Your task to perform on an android device: find snoozed emails in the gmail app Image 0: 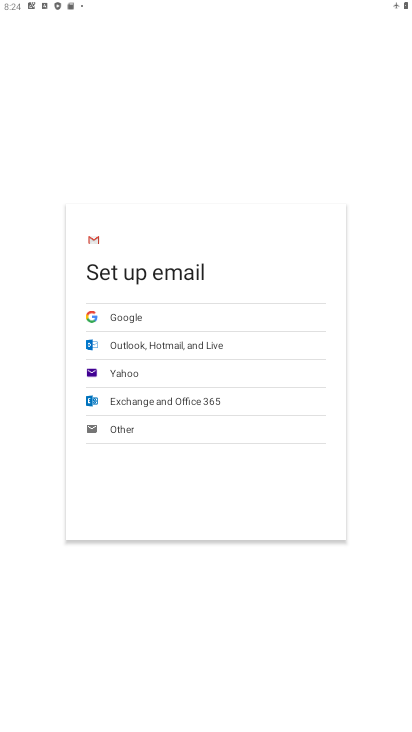
Step 0: press home button
Your task to perform on an android device: find snoozed emails in the gmail app Image 1: 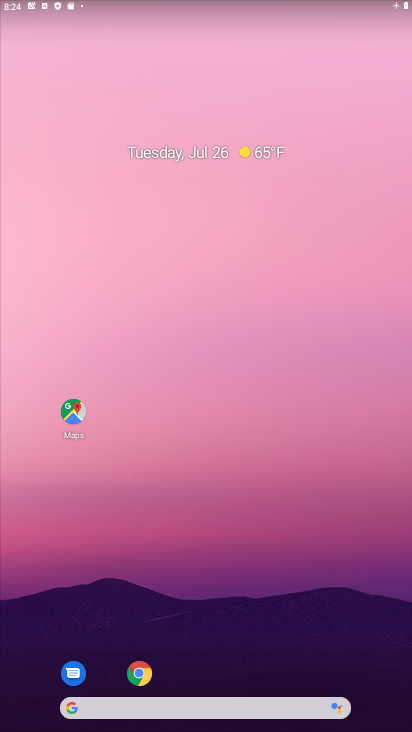
Step 1: drag from (222, 652) to (224, 180)
Your task to perform on an android device: find snoozed emails in the gmail app Image 2: 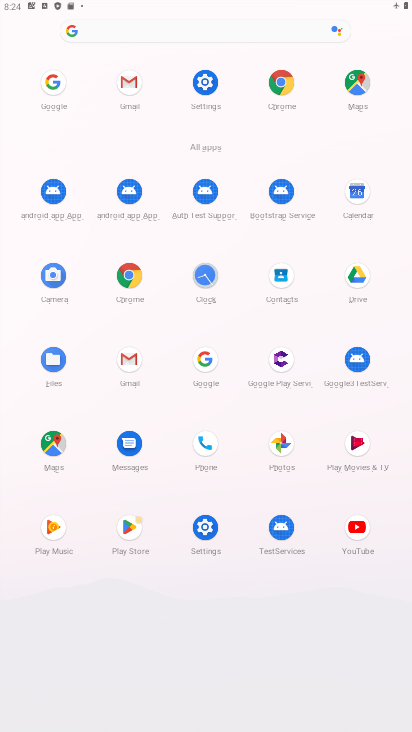
Step 2: click (129, 363)
Your task to perform on an android device: find snoozed emails in the gmail app Image 3: 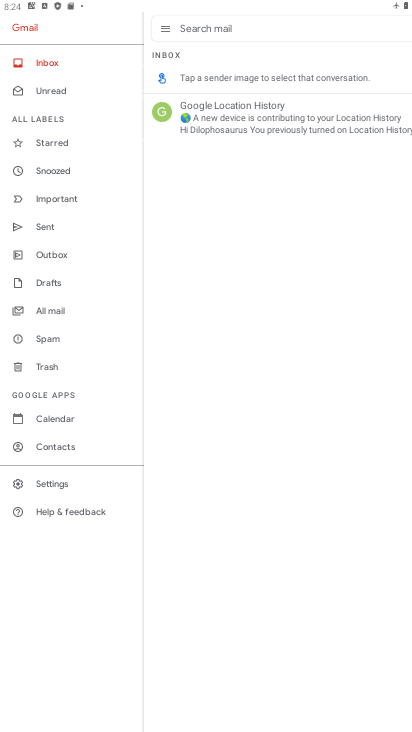
Step 3: click (74, 168)
Your task to perform on an android device: find snoozed emails in the gmail app Image 4: 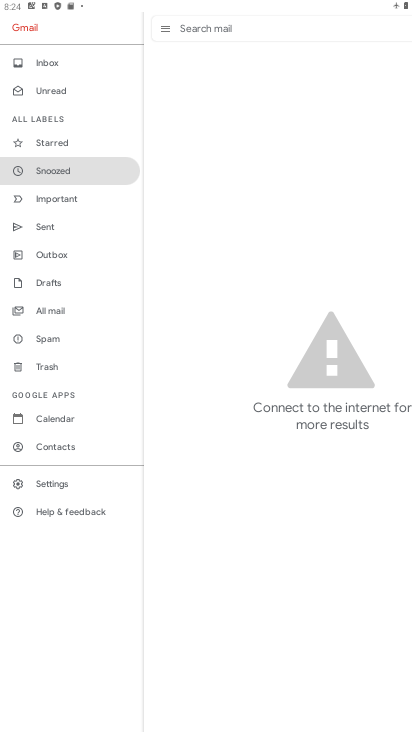
Step 4: task complete